Your task to perform on an android device: Go to settings Image 0: 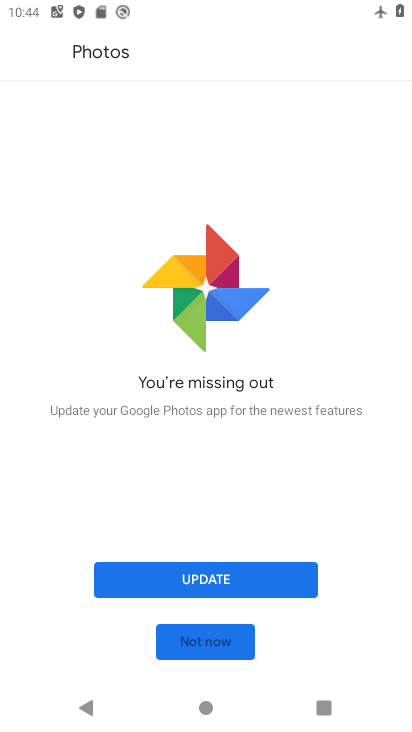
Step 0: press home button
Your task to perform on an android device: Go to settings Image 1: 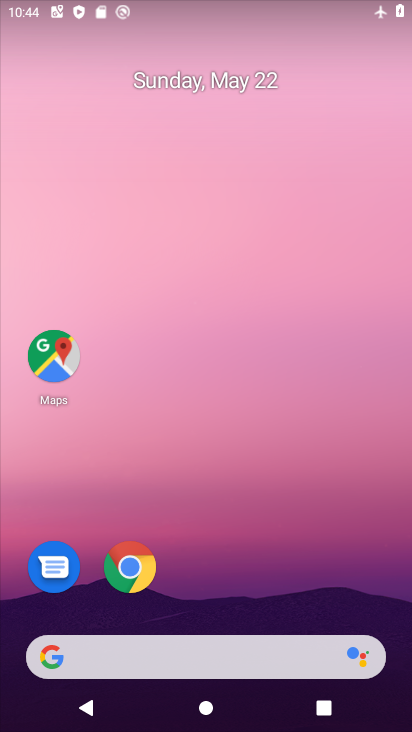
Step 1: drag from (317, 503) to (307, 89)
Your task to perform on an android device: Go to settings Image 2: 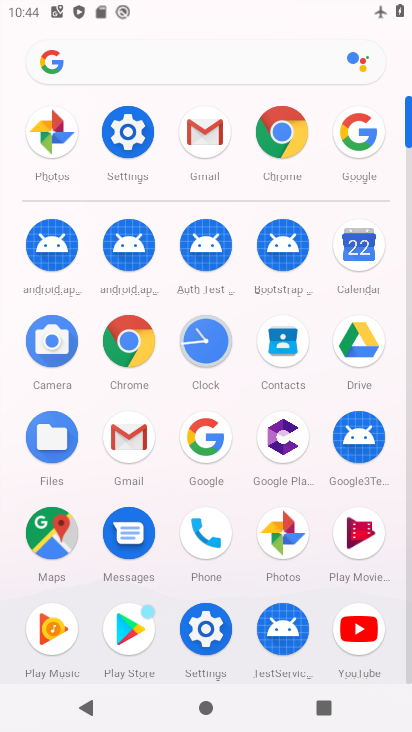
Step 2: click (211, 631)
Your task to perform on an android device: Go to settings Image 3: 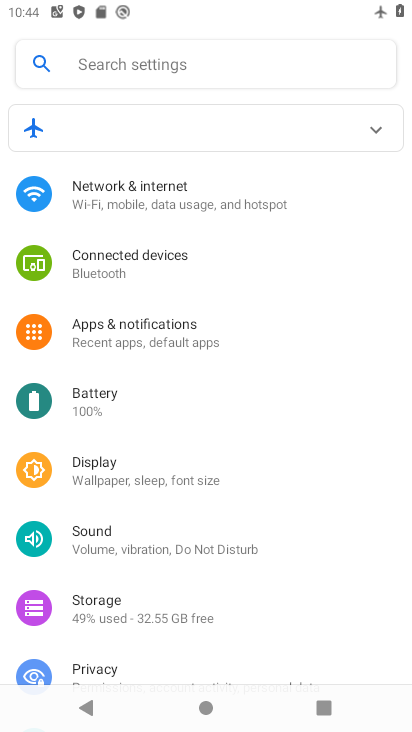
Step 3: click (303, 120)
Your task to perform on an android device: Go to settings Image 4: 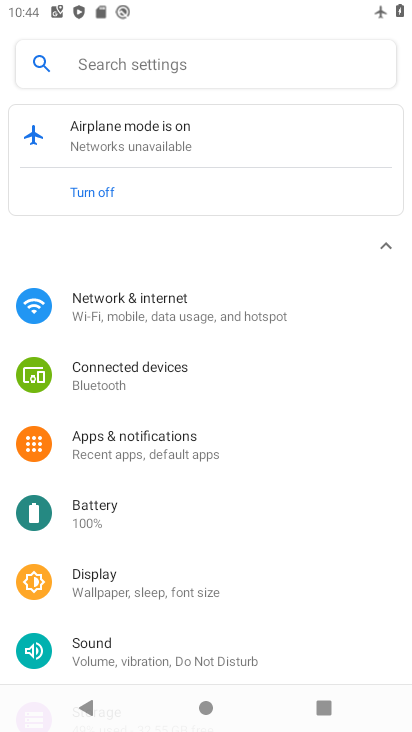
Step 4: click (123, 192)
Your task to perform on an android device: Go to settings Image 5: 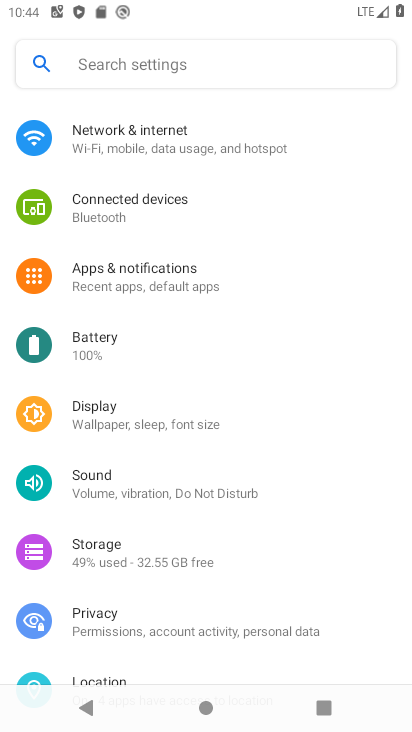
Step 5: task complete